Your task to perform on an android device: Go to CNN.com Image 0: 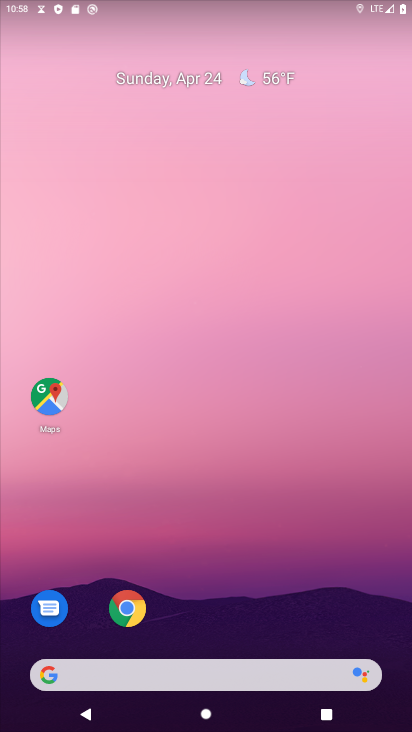
Step 0: click (136, 611)
Your task to perform on an android device: Go to CNN.com Image 1: 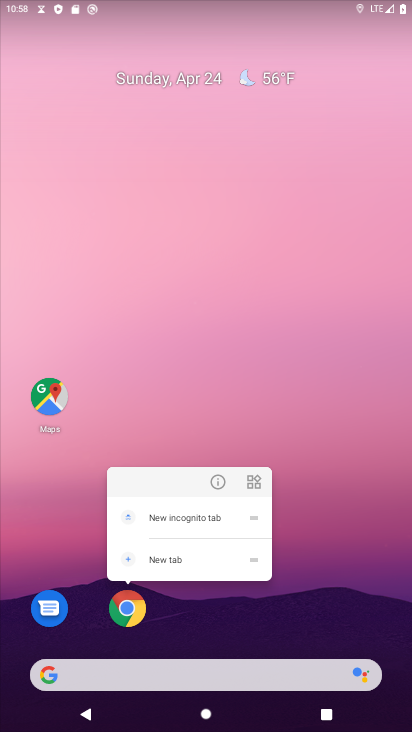
Step 1: click (132, 612)
Your task to perform on an android device: Go to CNN.com Image 2: 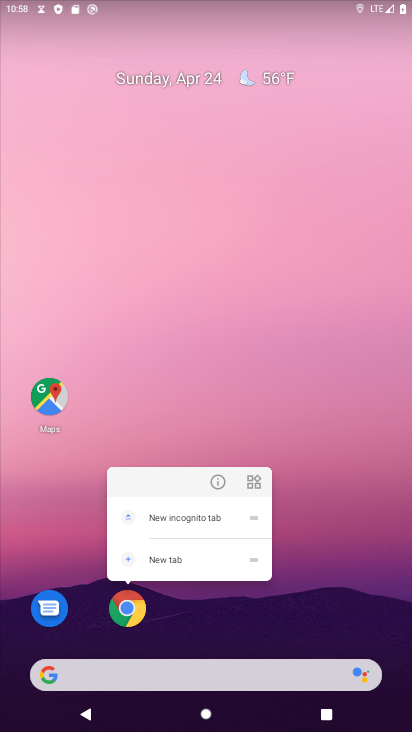
Step 2: click (132, 612)
Your task to perform on an android device: Go to CNN.com Image 3: 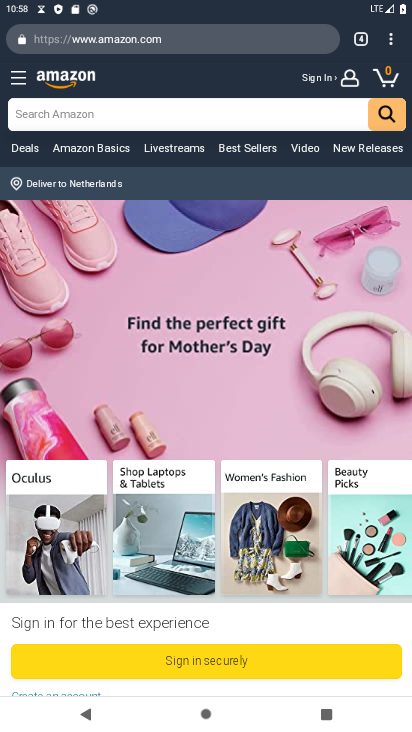
Step 3: click (357, 36)
Your task to perform on an android device: Go to CNN.com Image 4: 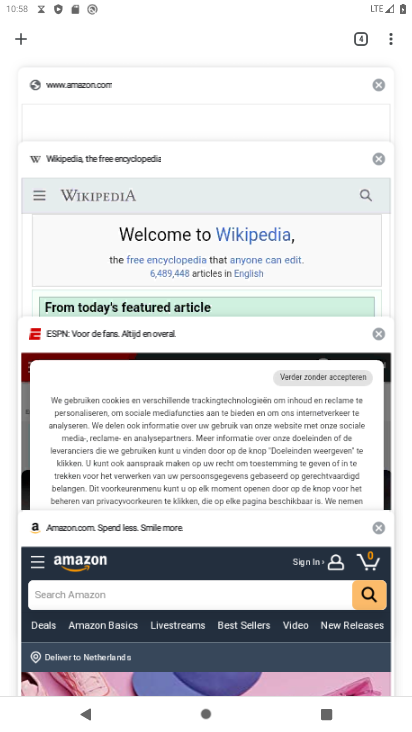
Step 4: click (30, 34)
Your task to perform on an android device: Go to CNN.com Image 5: 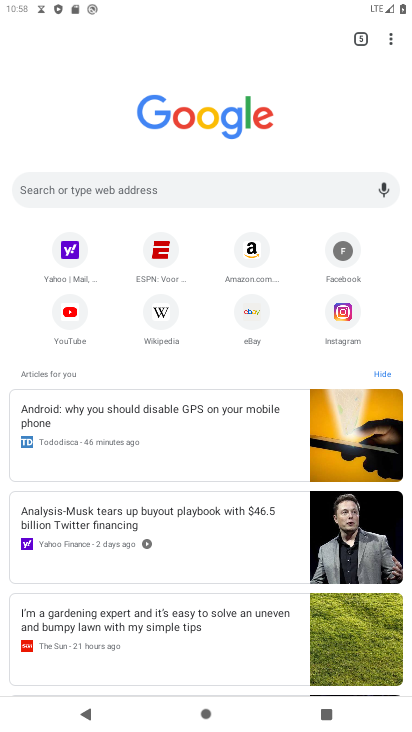
Step 5: click (181, 184)
Your task to perform on an android device: Go to CNN.com Image 6: 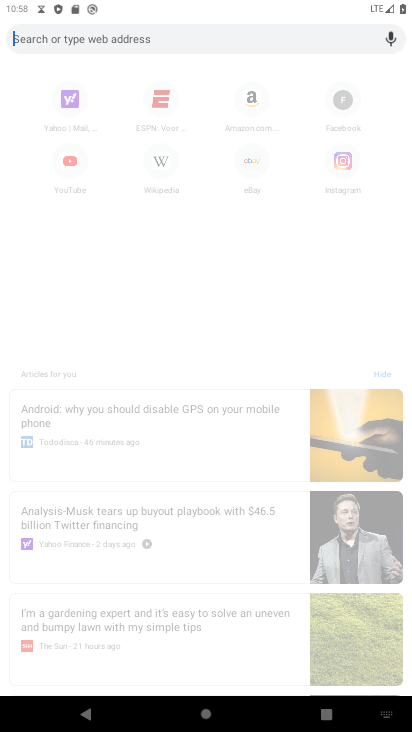
Step 6: type "cnn"
Your task to perform on an android device: Go to CNN.com Image 7: 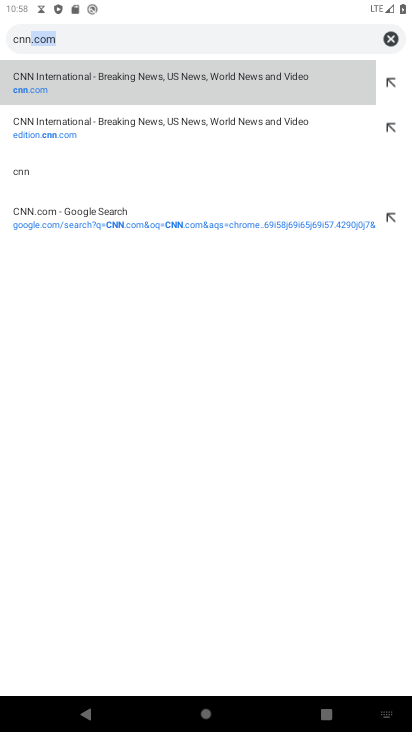
Step 7: click (37, 84)
Your task to perform on an android device: Go to CNN.com Image 8: 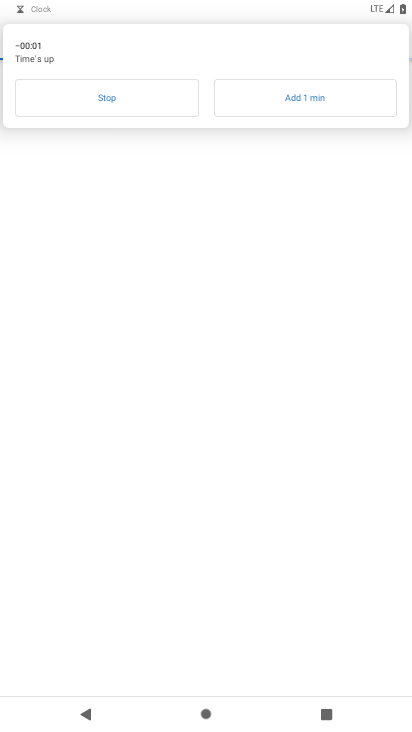
Step 8: task complete